Your task to perform on an android device: Search for handmade jewelry on Etsy. Image 0: 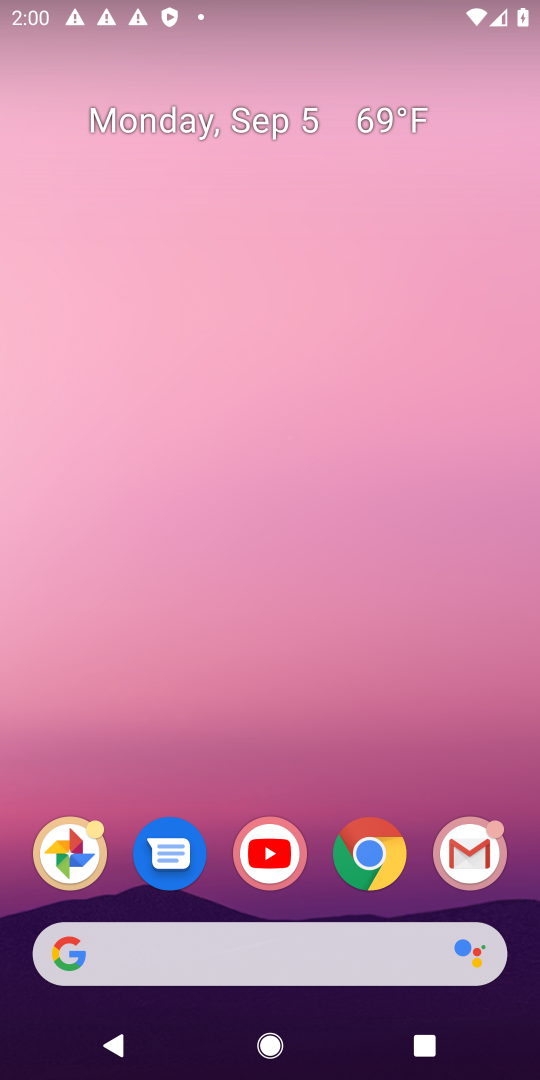
Step 0: click (279, 332)
Your task to perform on an android device: Search for handmade jewelry on Etsy. Image 1: 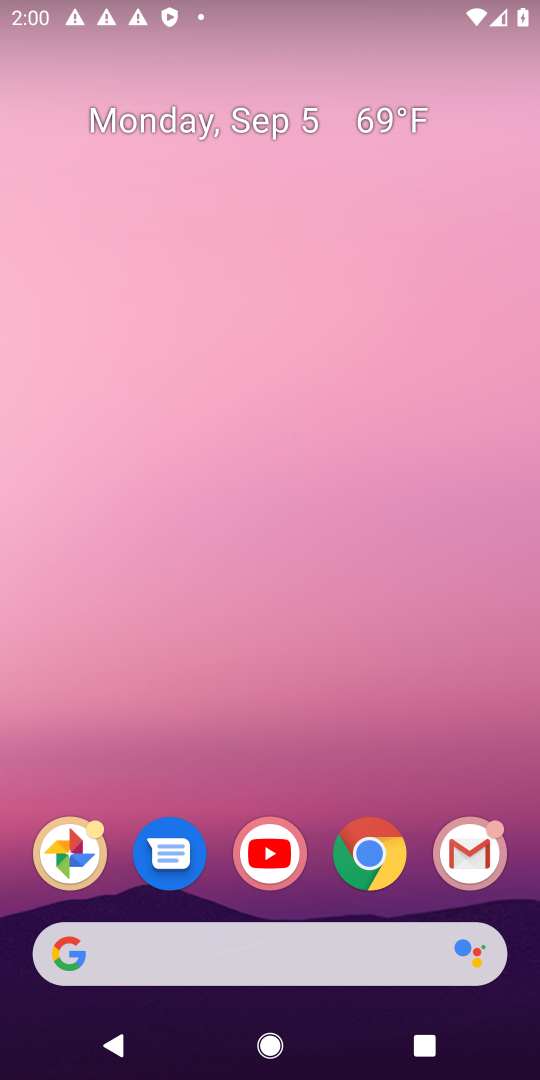
Step 1: drag from (273, 935) to (328, 377)
Your task to perform on an android device: Search for handmade jewelry on Etsy. Image 2: 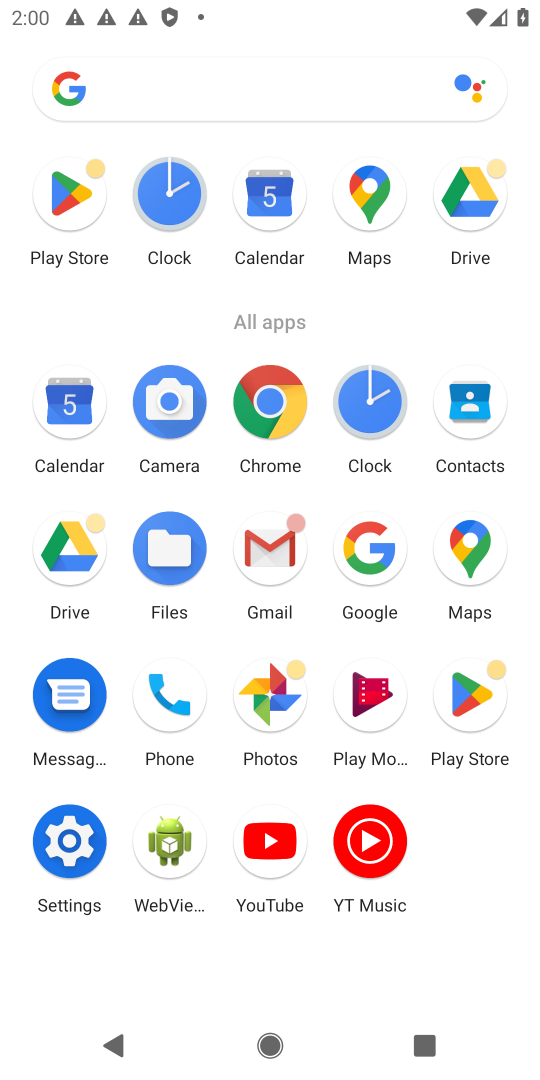
Step 2: click (370, 566)
Your task to perform on an android device: Search for handmade jewelry on Etsy. Image 3: 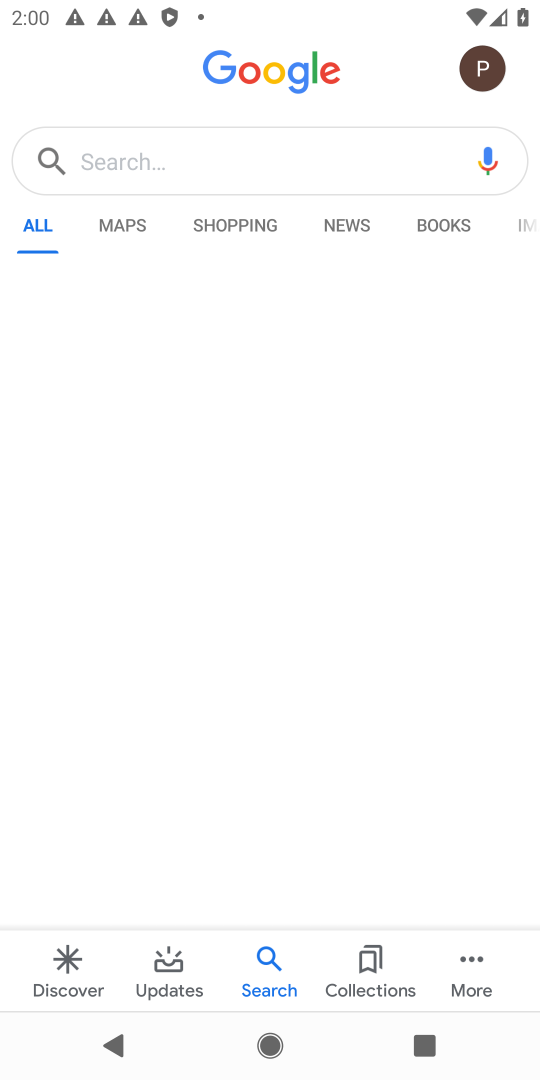
Step 3: click (154, 153)
Your task to perform on an android device: Search for handmade jewelry on Etsy. Image 4: 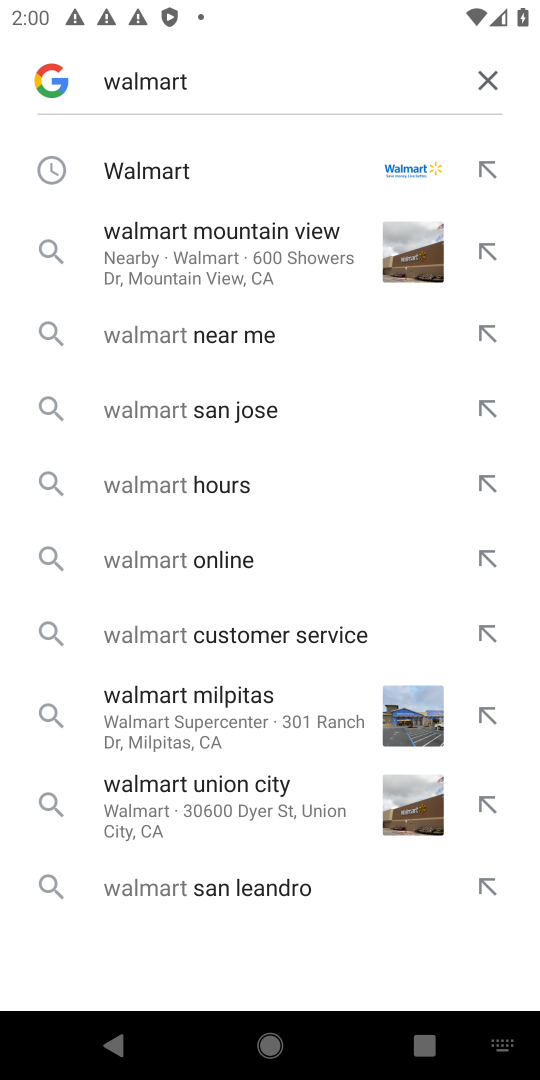
Step 4: click (489, 78)
Your task to perform on an android device: Search for handmade jewelry on Etsy. Image 5: 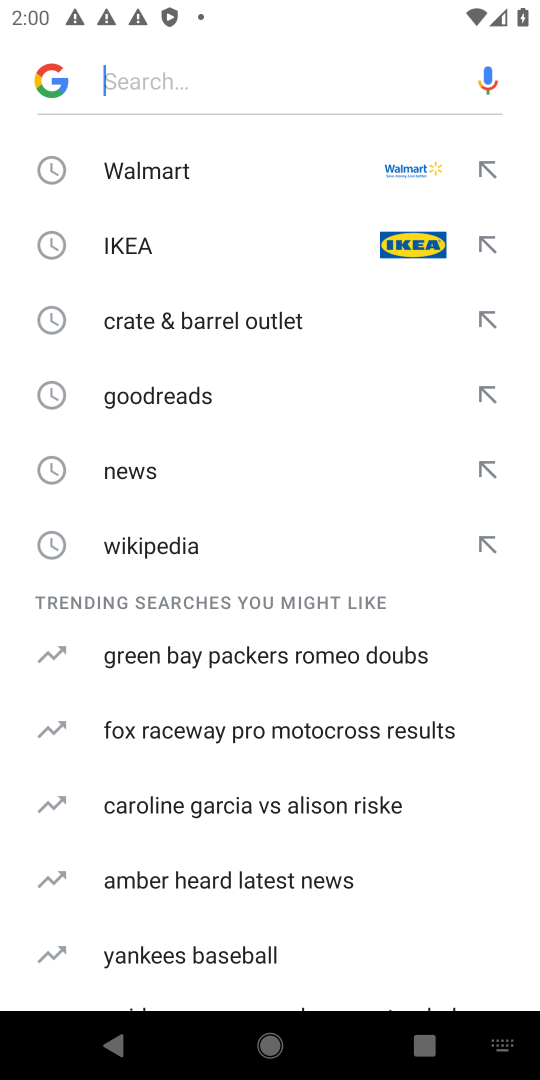
Step 5: type "Etsy"
Your task to perform on an android device: Search for handmade jewelry on Etsy. Image 6: 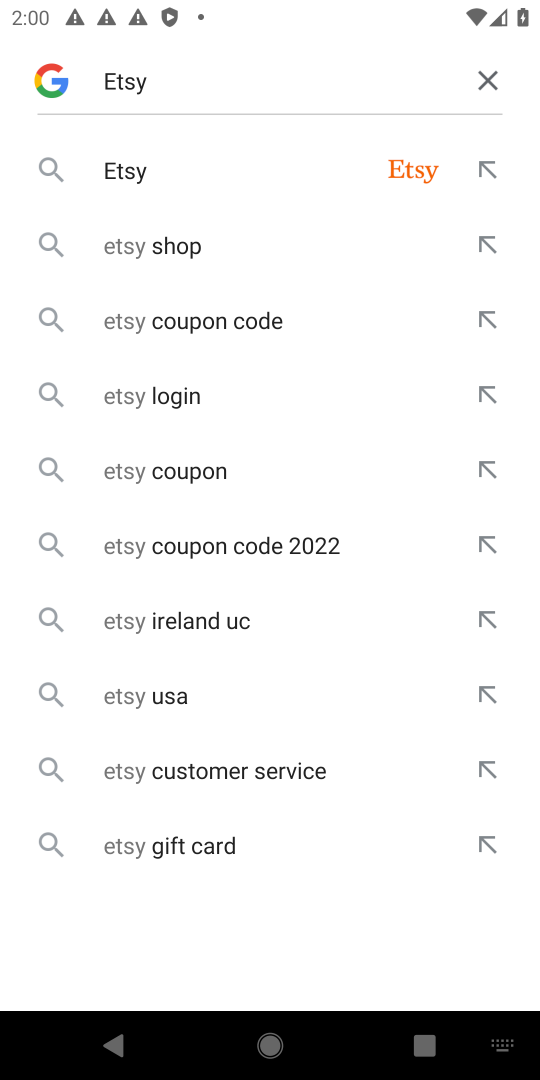
Step 6: click (400, 162)
Your task to perform on an android device: Search for handmade jewelry on Etsy. Image 7: 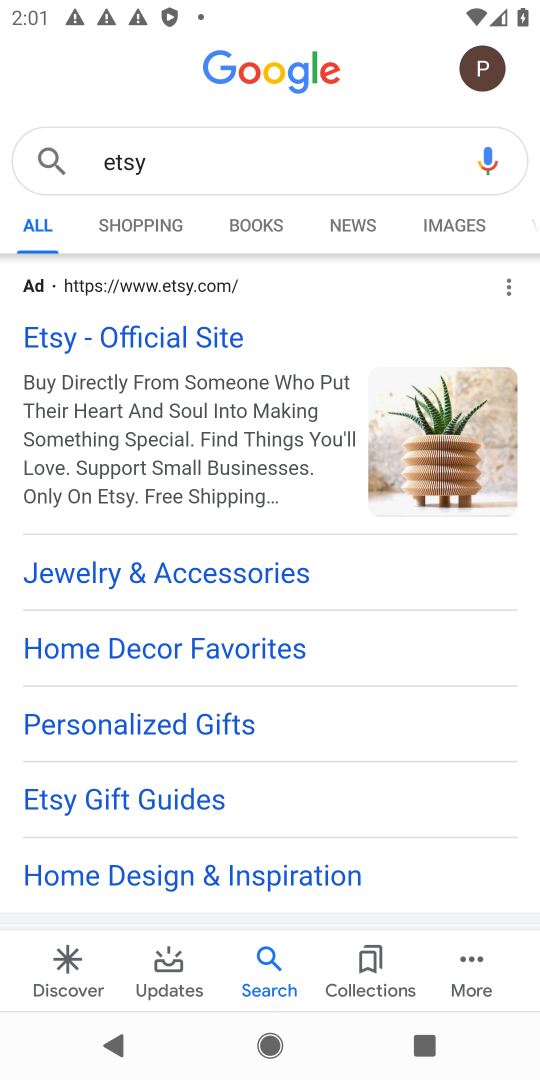
Step 7: click (62, 340)
Your task to perform on an android device: Search for handmade jewelry on Etsy. Image 8: 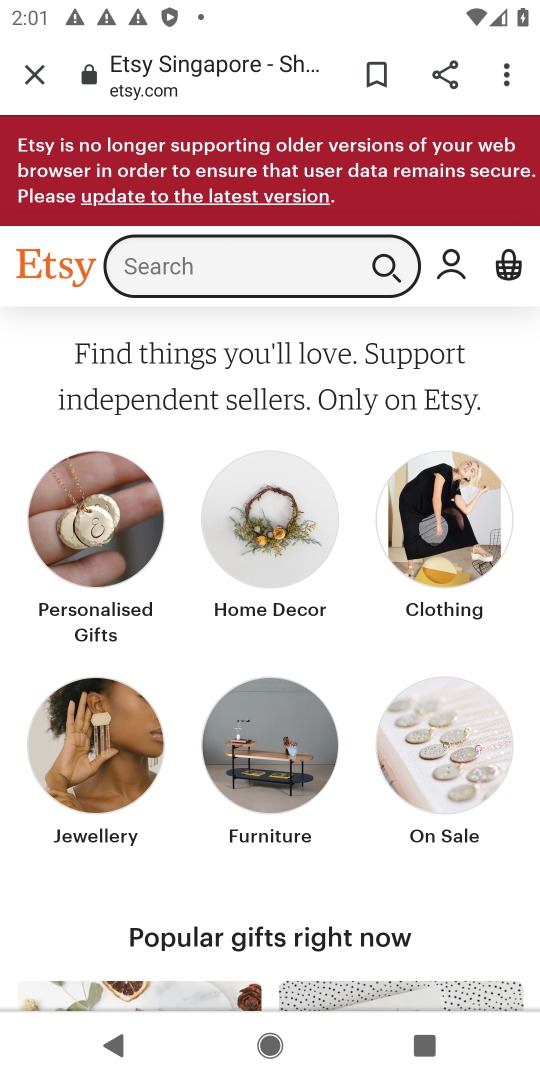
Step 8: click (140, 260)
Your task to perform on an android device: Search for handmade jewelry on Etsy. Image 9: 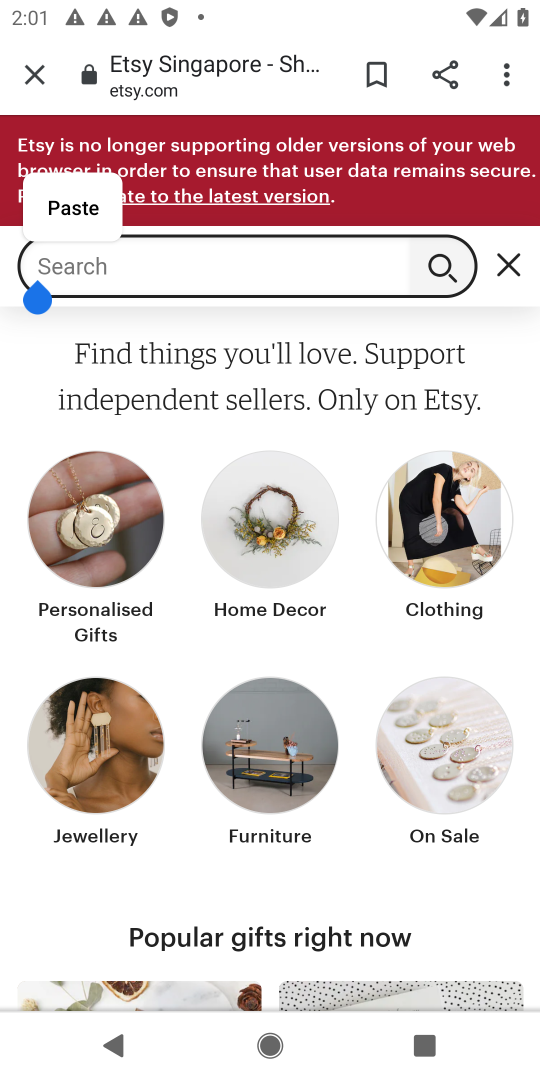
Step 9: type "handmade jewelry"
Your task to perform on an android device: Search for handmade jewelry on Etsy. Image 10: 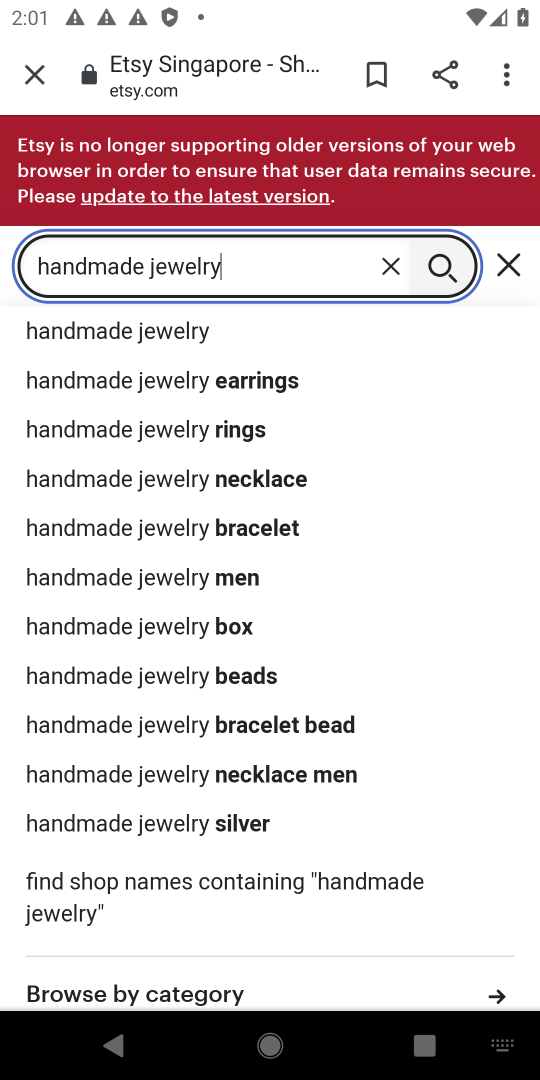
Step 10: click (100, 341)
Your task to perform on an android device: Search for handmade jewelry on Etsy. Image 11: 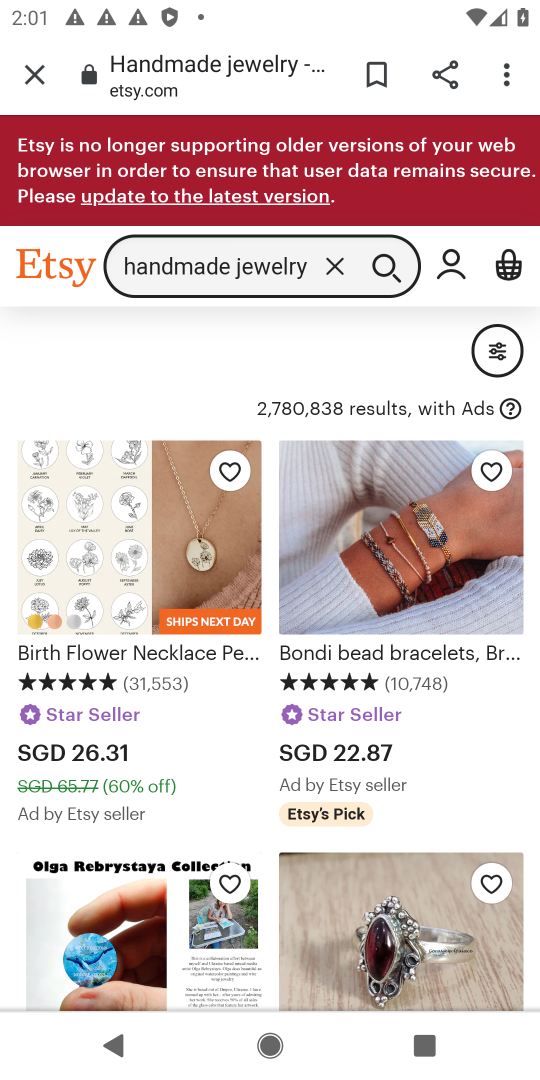
Step 11: drag from (276, 465) to (295, 280)
Your task to perform on an android device: Search for handmade jewelry on Etsy. Image 12: 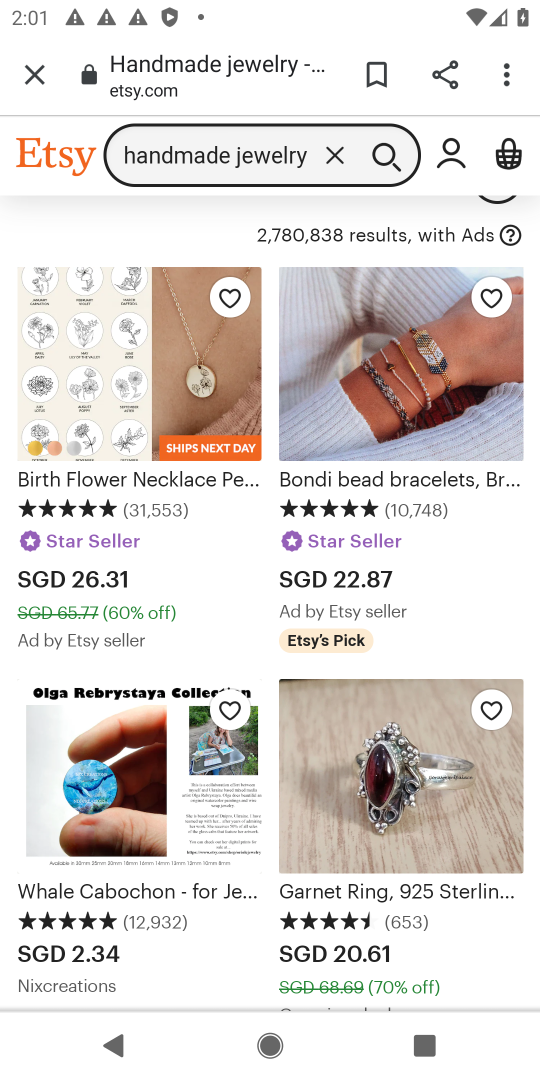
Step 12: click (358, 429)
Your task to perform on an android device: Search for handmade jewelry on Etsy. Image 13: 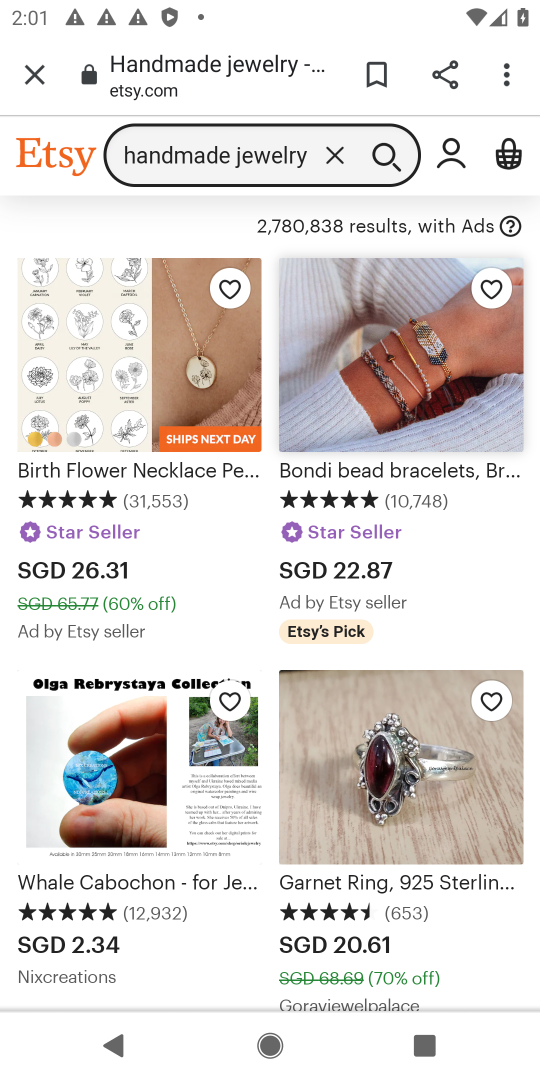
Step 13: task complete